Your task to perform on an android device: open a new tab in the chrome app Image 0: 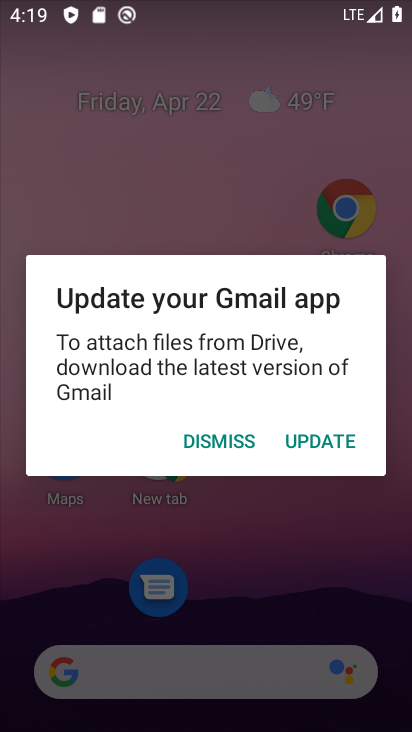
Step 0: press home button
Your task to perform on an android device: open a new tab in the chrome app Image 1: 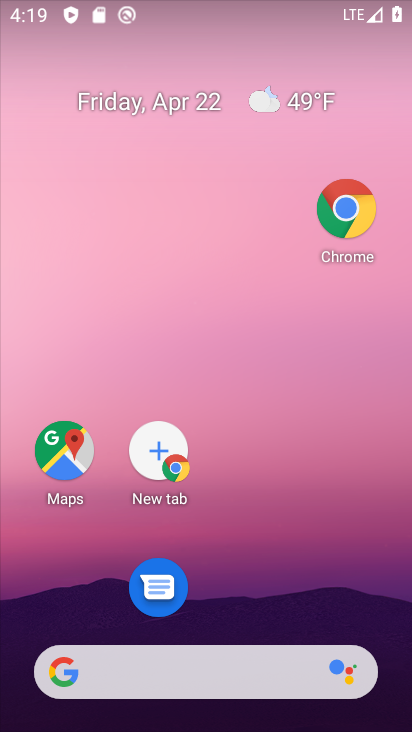
Step 1: click (155, 450)
Your task to perform on an android device: open a new tab in the chrome app Image 2: 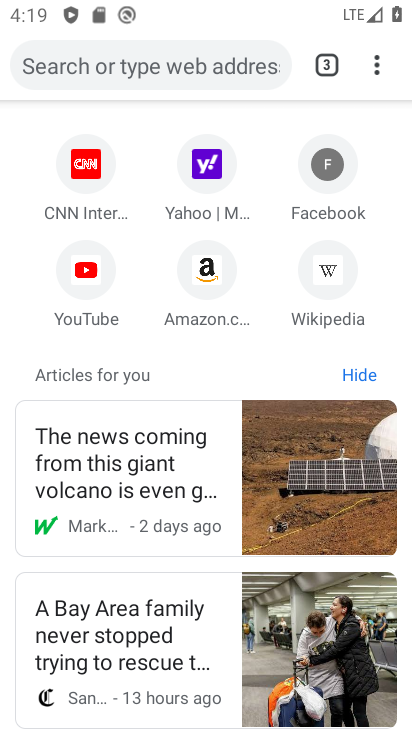
Step 2: task complete